Your task to perform on an android device: Open display settings Image 0: 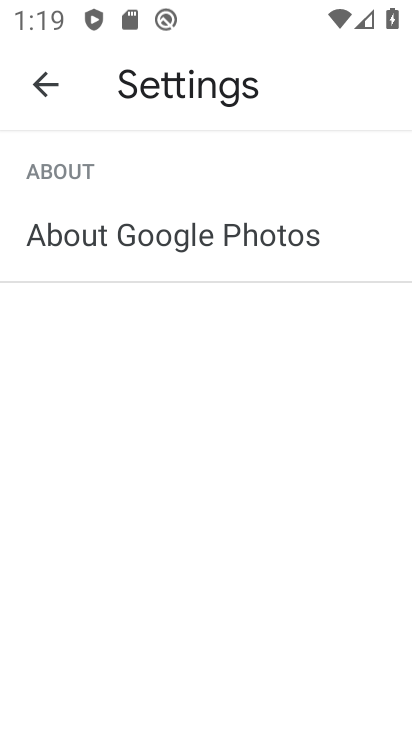
Step 0: press home button
Your task to perform on an android device: Open display settings Image 1: 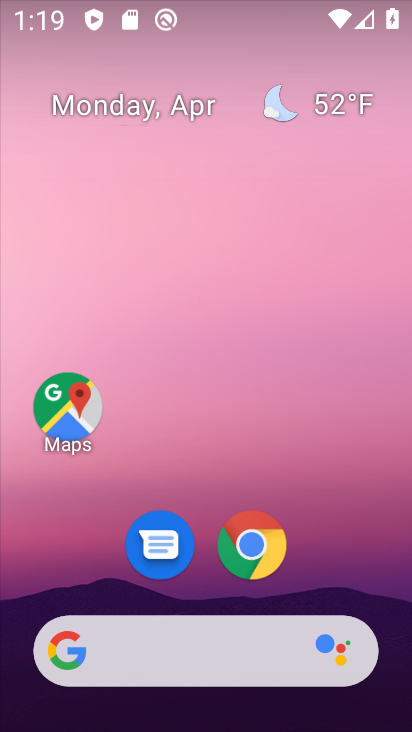
Step 1: drag from (215, 717) to (178, 165)
Your task to perform on an android device: Open display settings Image 2: 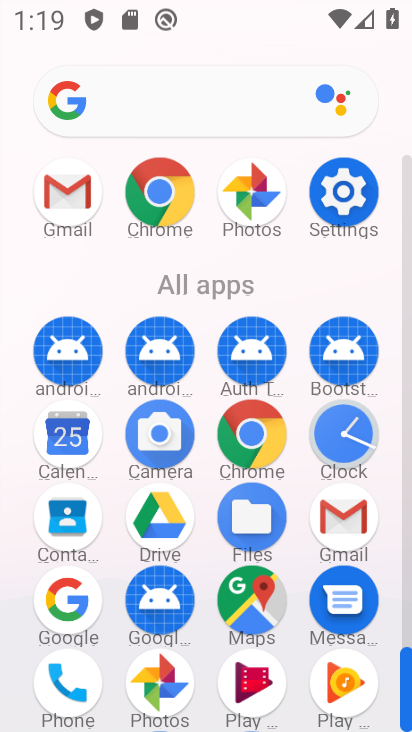
Step 2: click (337, 192)
Your task to perform on an android device: Open display settings Image 3: 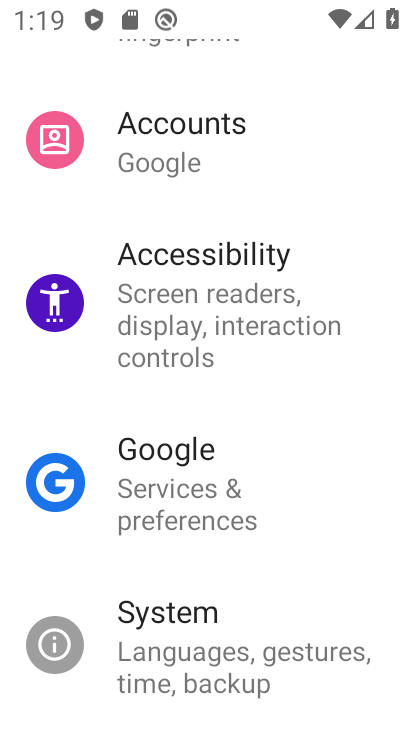
Step 3: drag from (191, 649) to (200, 196)
Your task to perform on an android device: Open display settings Image 4: 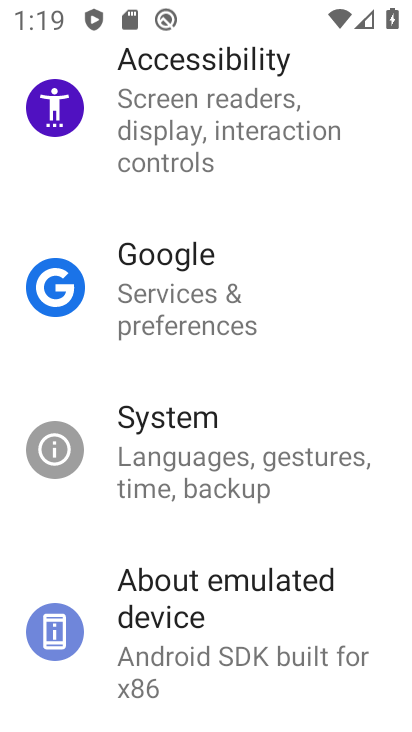
Step 4: drag from (206, 656) to (216, 200)
Your task to perform on an android device: Open display settings Image 5: 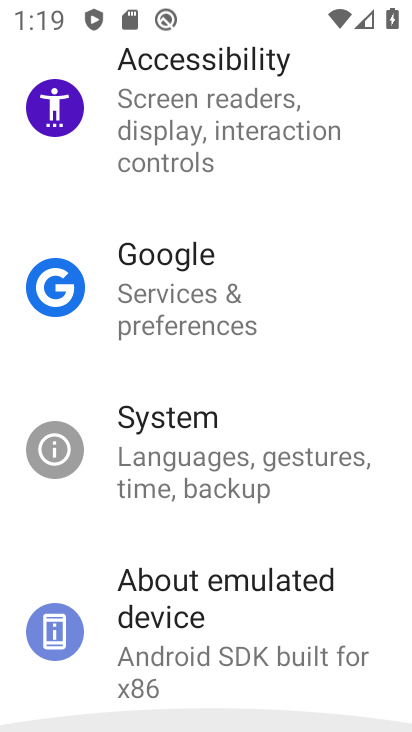
Step 5: drag from (261, 120) to (253, 596)
Your task to perform on an android device: Open display settings Image 6: 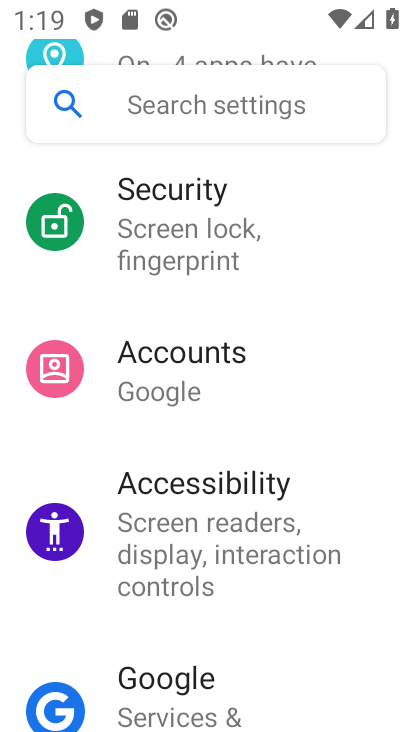
Step 6: drag from (231, 171) to (229, 588)
Your task to perform on an android device: Open display settings Image 7: 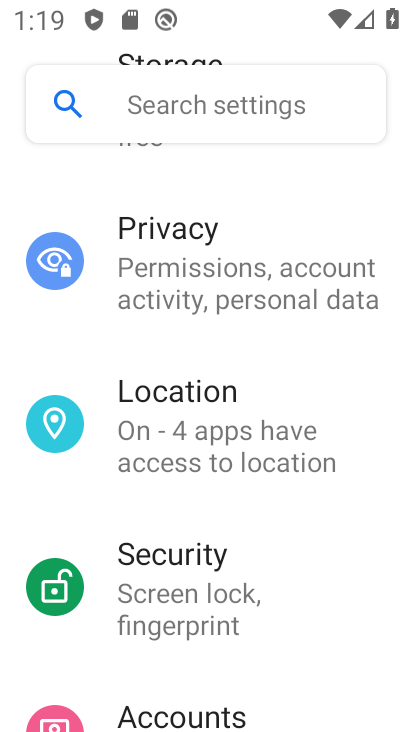
Step 7: drag from (229, 214) to (230, 543)
Your task to perform on an android device: Open display settings Image 8: 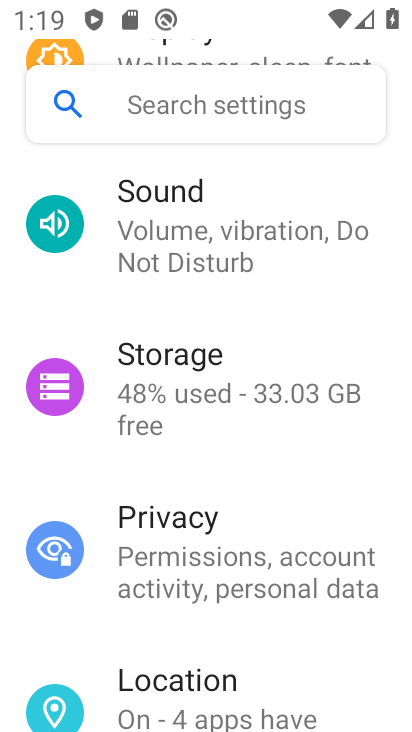
Step 8: drag from (233, 190) to (226, 543)
Your task to perform on an android device: Open display settings Image 9: 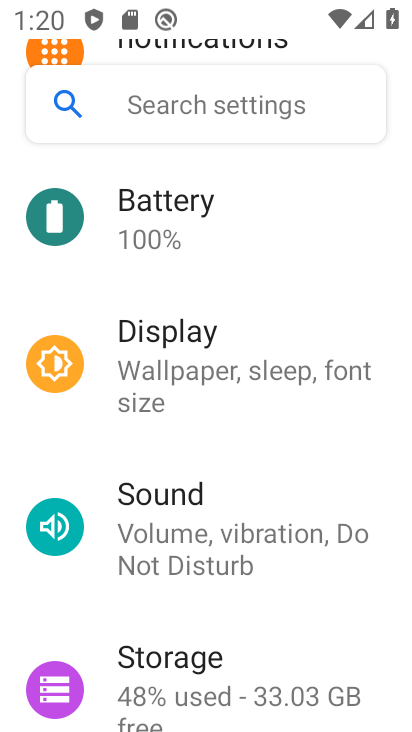
Step 9: click (158, 368)
Your task to perform on an android device: Open display settings Image 10: 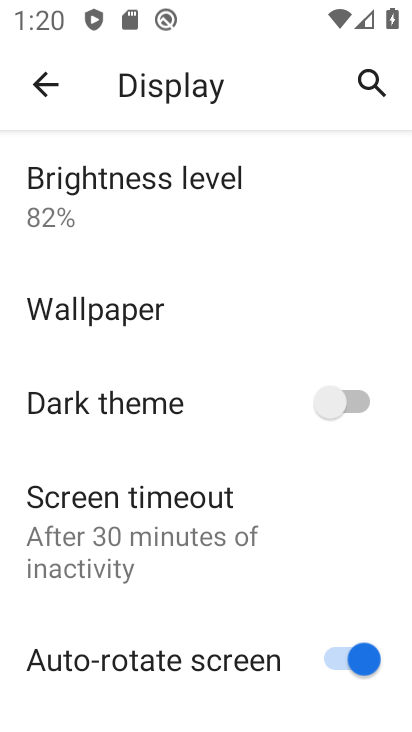
Step 10: task complete